Your task to perform on an android device: Clear all items from cart on ebay.com. Image 0: 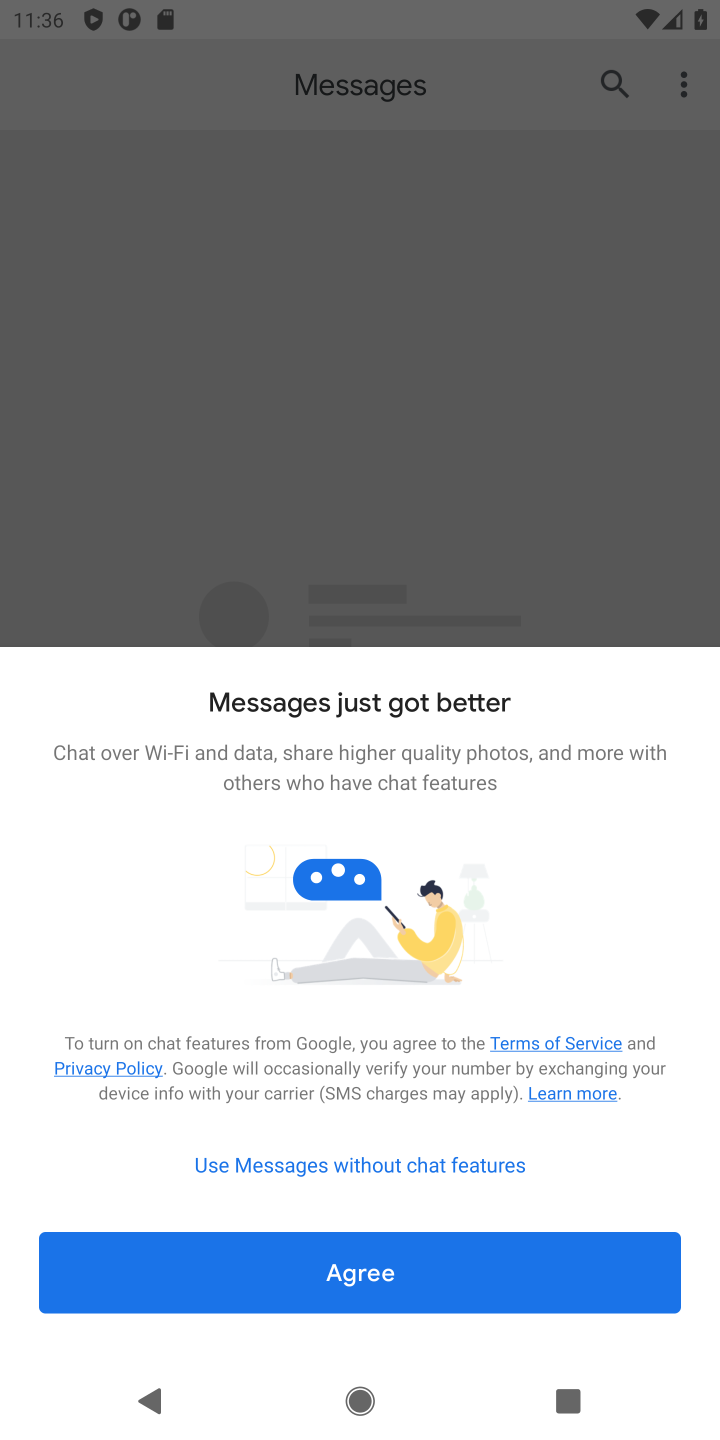
Step 0: press home button
Your task to perform on an android device: Clear all items from cart on ebay.com. Image 1: 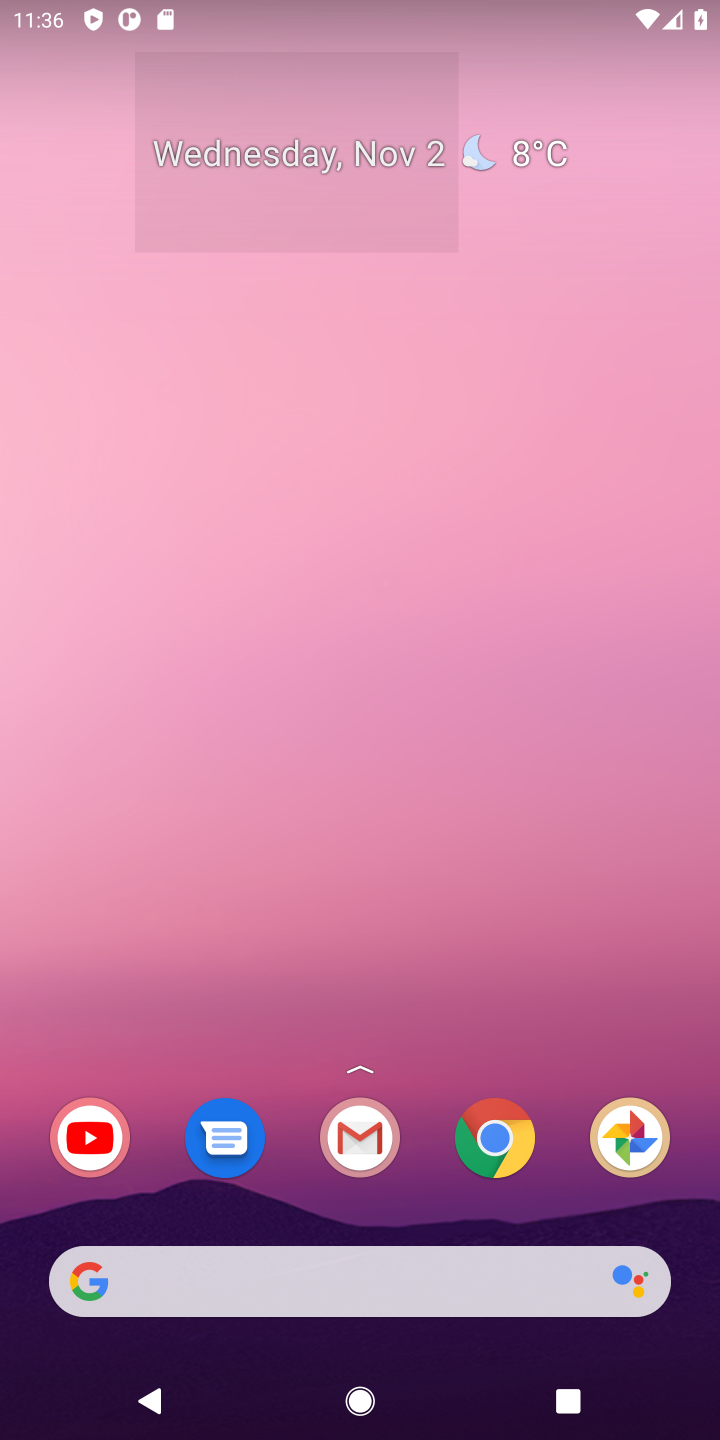
Step 1: click (463, 1156)
Your task to perform on an android device: Clear all items from cart on ebay.com. Image 2: 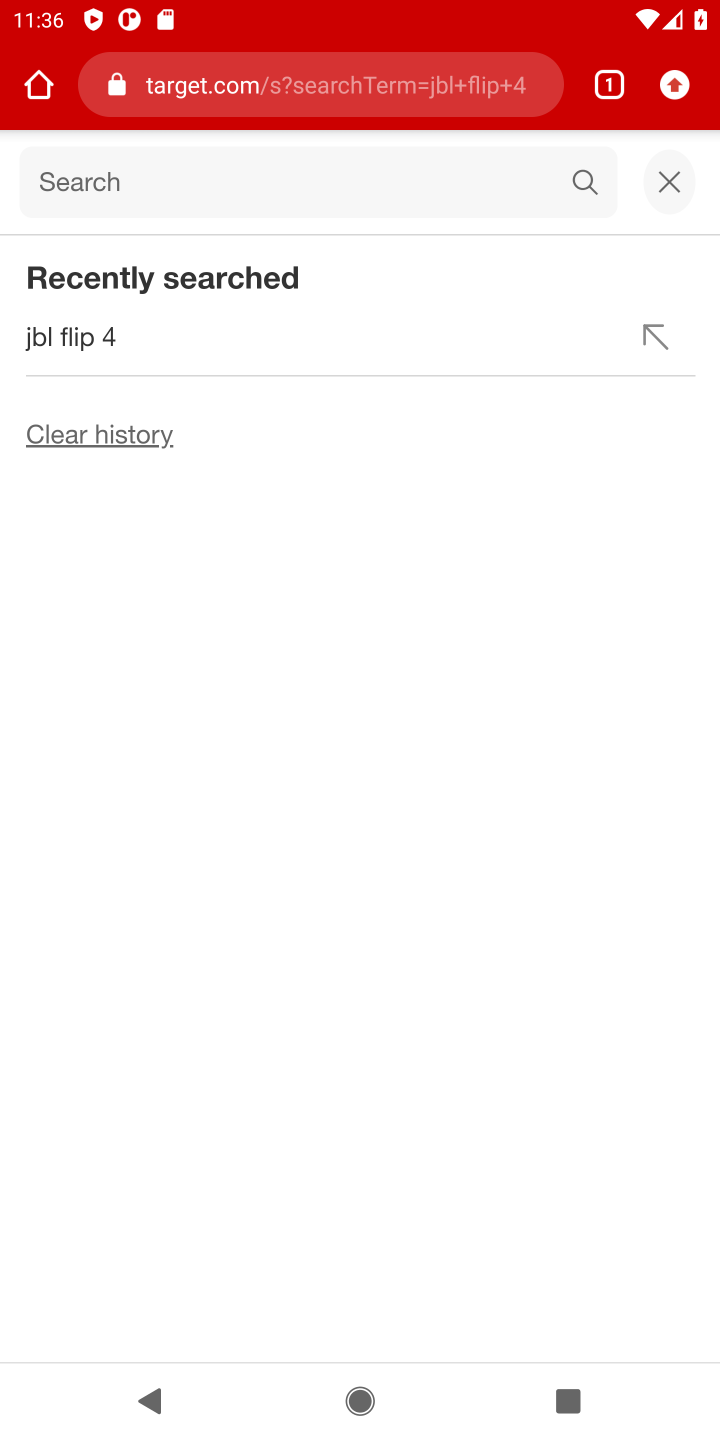
Step 2: click (406, 79)
Your task to perform on an android device: Clear all items from cart on ebay.com. Image 3: 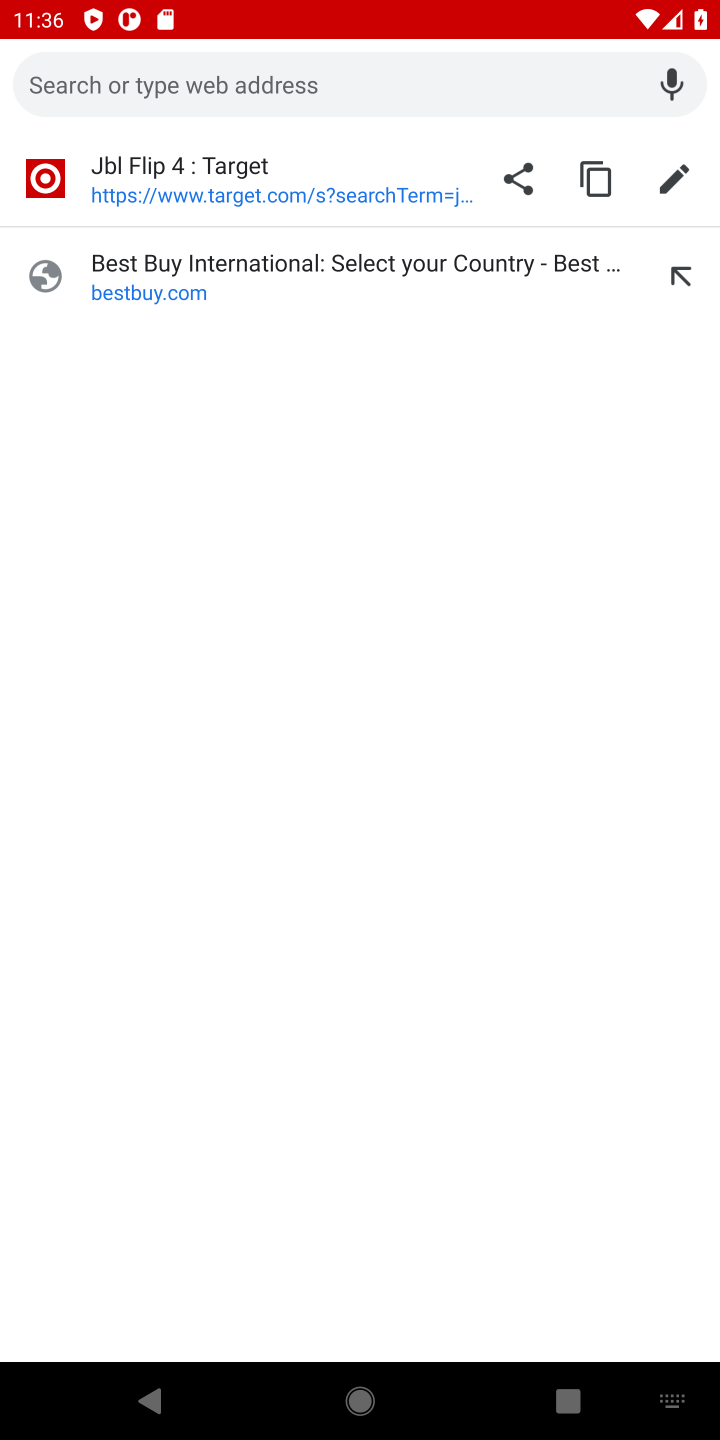
Step 3: type "ebay"
Your task to perform on an android device: Clear all items from cart on ebay.com. Image 4: 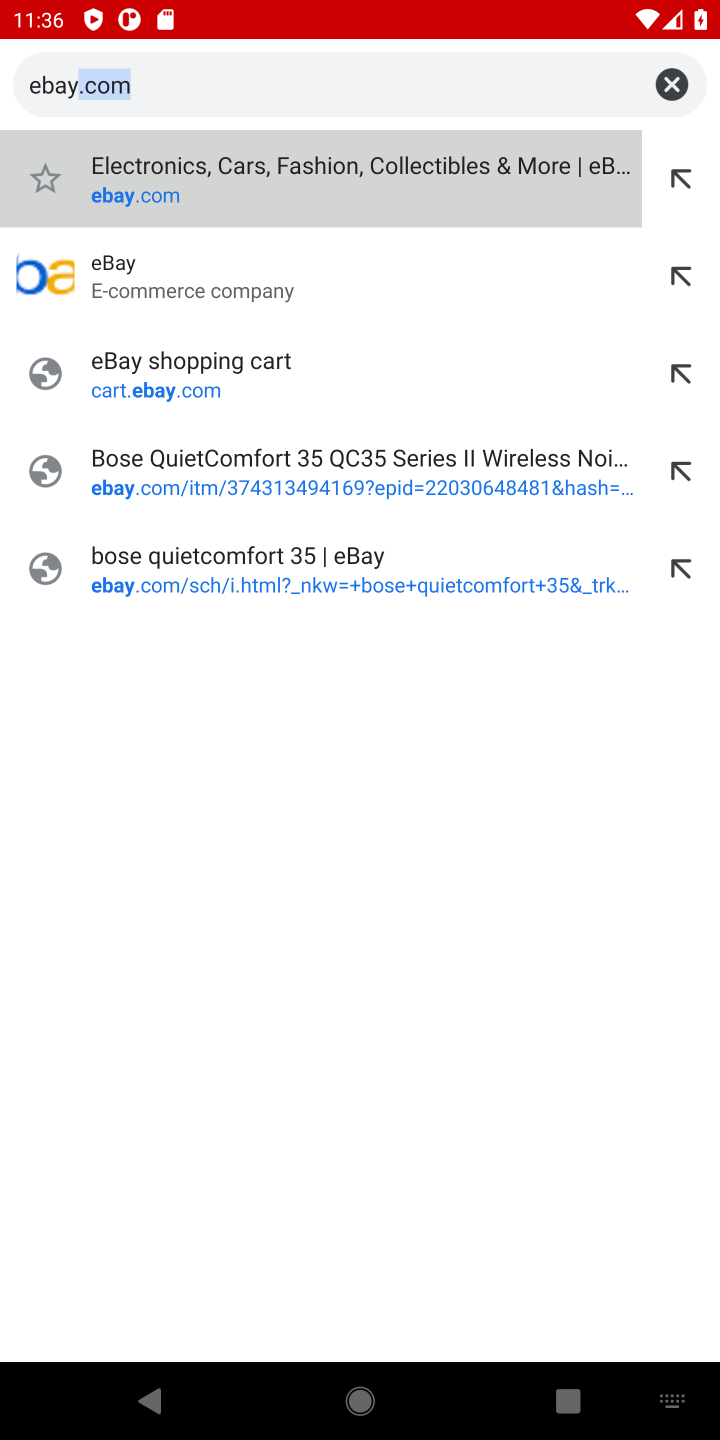
Step 4: click (93, 264)
Your task to perform on an android device: Clear all items from cart on ebay.com. Image 5: 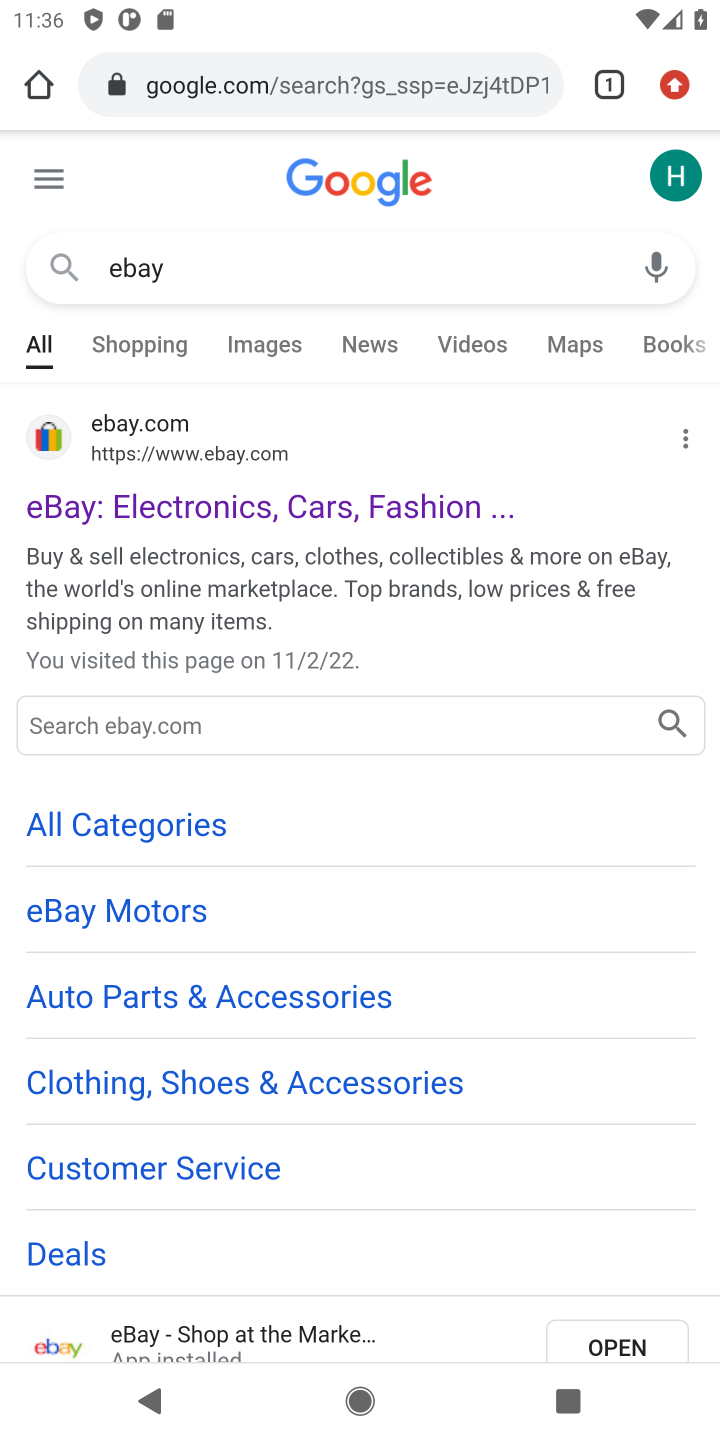
Step 5: click (288, 516)
Your task to perform on an android device: Clear all items from cart on ebay.com. Image 6: 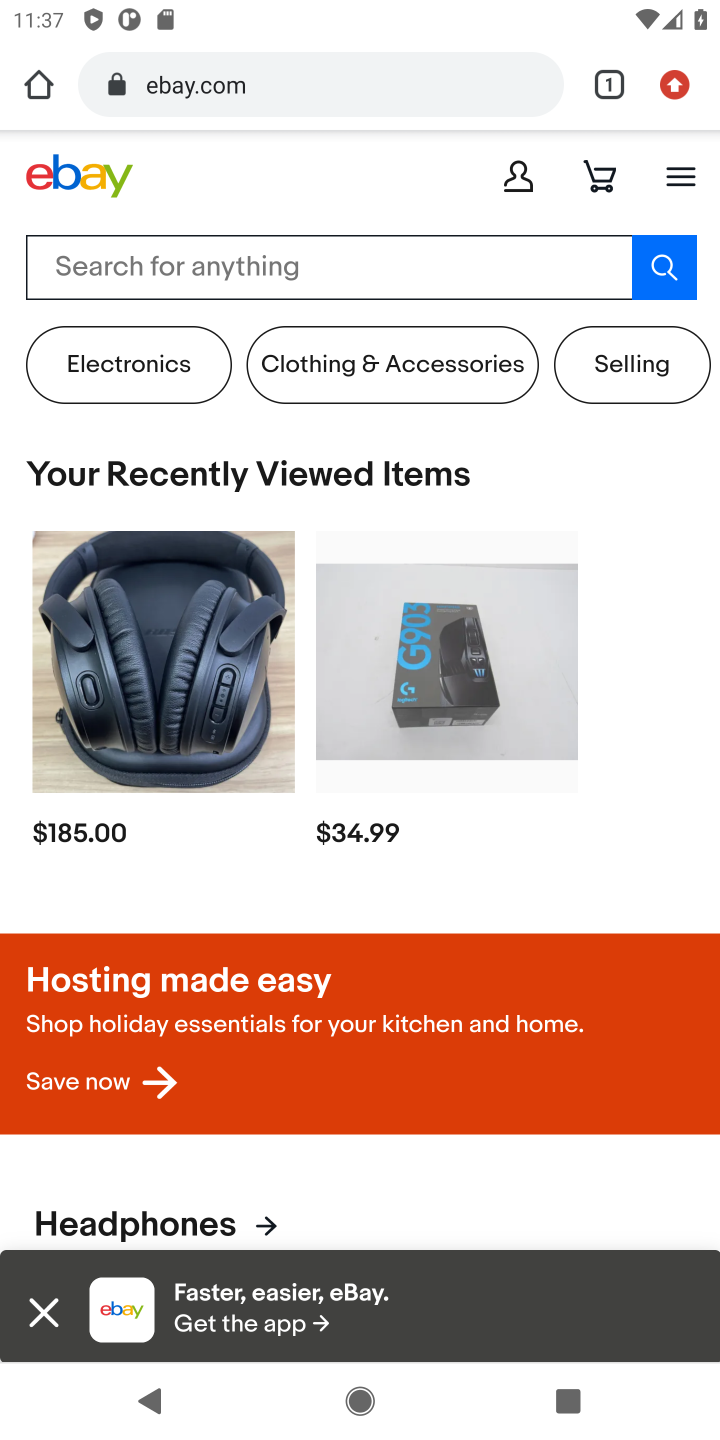
Step 6: click (599, 193)
Your task to perform on an android device: Clear all items from cart on ebay.com. Image 7: 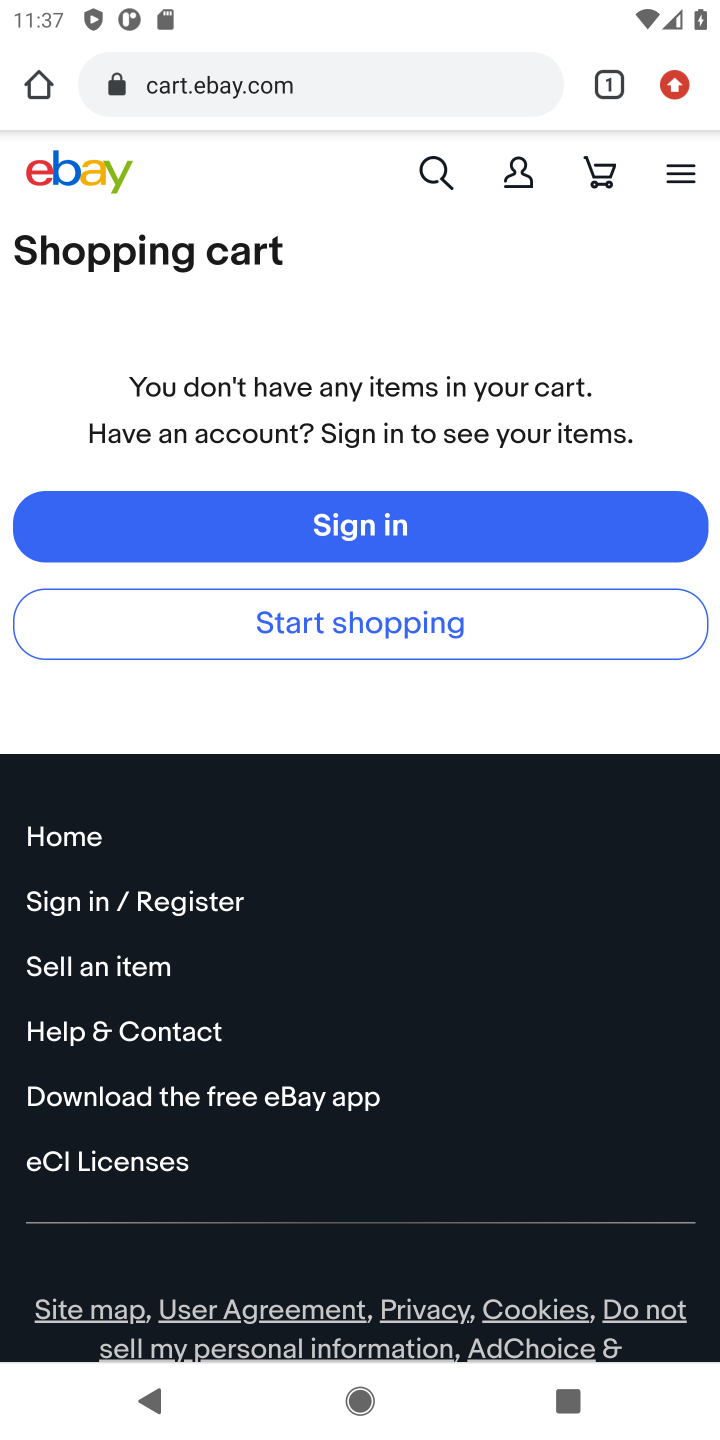
Step 7: task complete